Your task to perform on an android device: set default search engine in the chrome app Image 0: 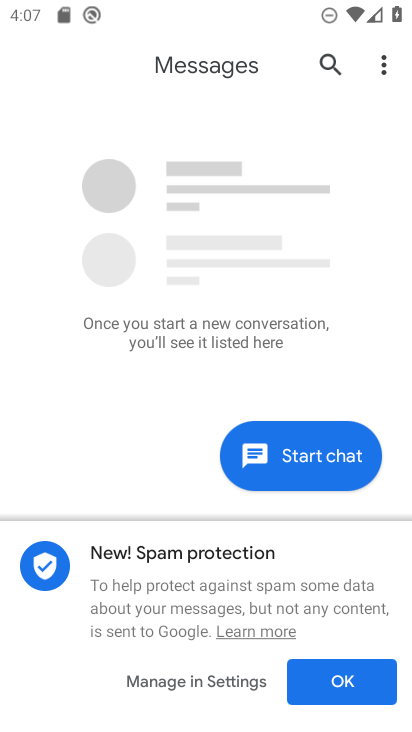
Step 0: press home button
Your task to perform on an android device: set default search engine in the chrome app Image 1: 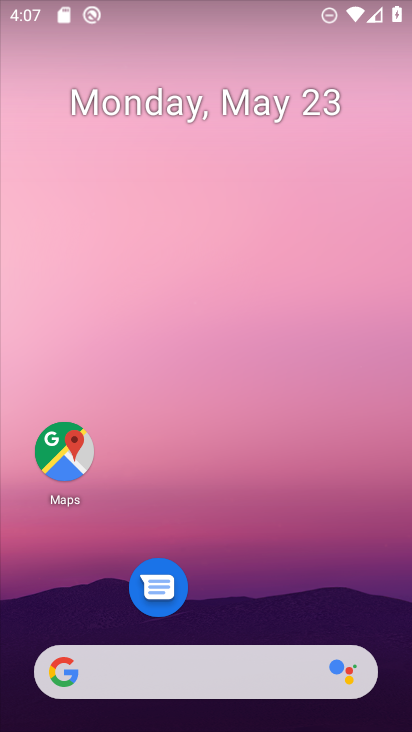
Step 1: drag from (209, 617) to (212, 200)
Your task to perform on an android device: set default search engine in the chrome app Image 2: 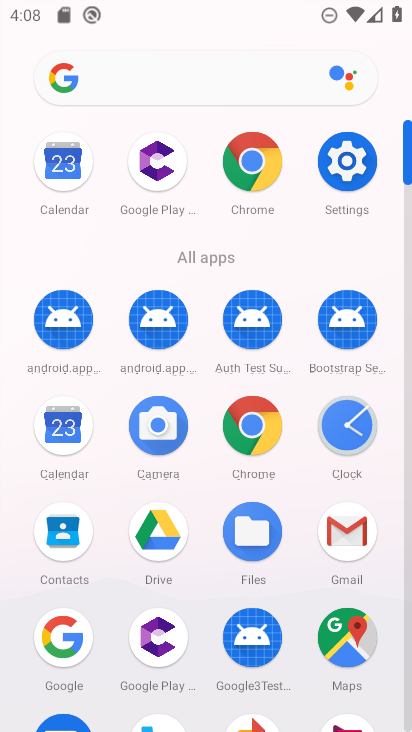
Step 2: click (278, 150)
Your task to perform on an android device: set default search engine in the chrome app Image 3: 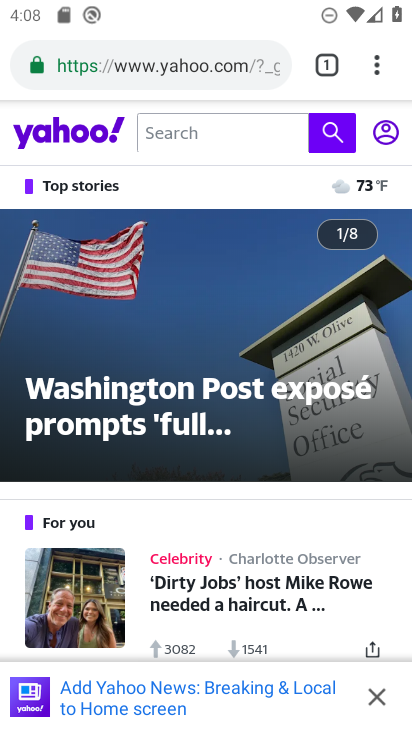
Step 3: click (367, 63)
Your task to perform on an android device: set default search engine in the chrome app Image 4: 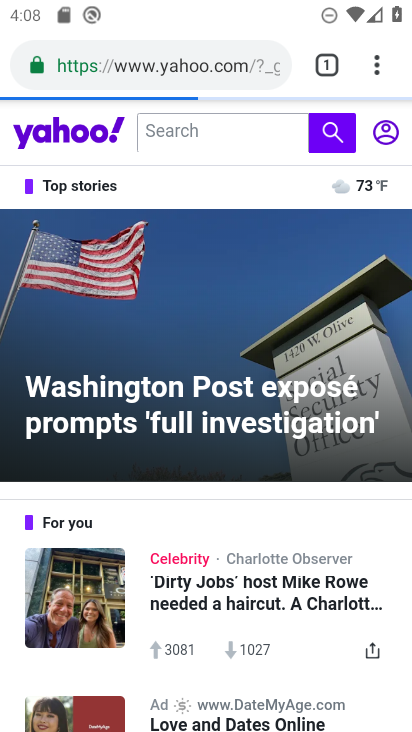
Step 4: drag from (369, 67) to (146, 642)
Your task to perform on an android device: set default search engine in the chrome app Image 5: 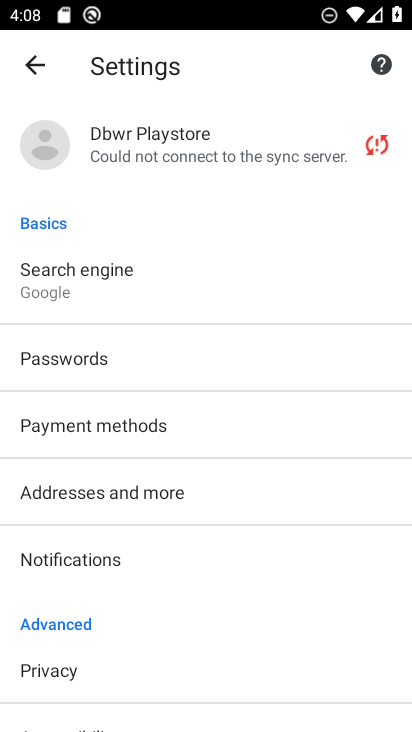
Step 5: click (147, 268)
Your task to perform on an android device: set default search engine in the chrome app Image 6: 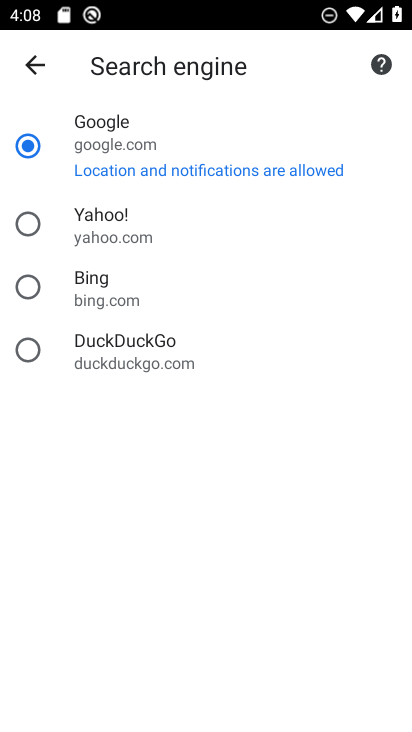
Step 6: click (110, 236)
Your task to perform on an android device: set default search engine in the chrome app Image 7: 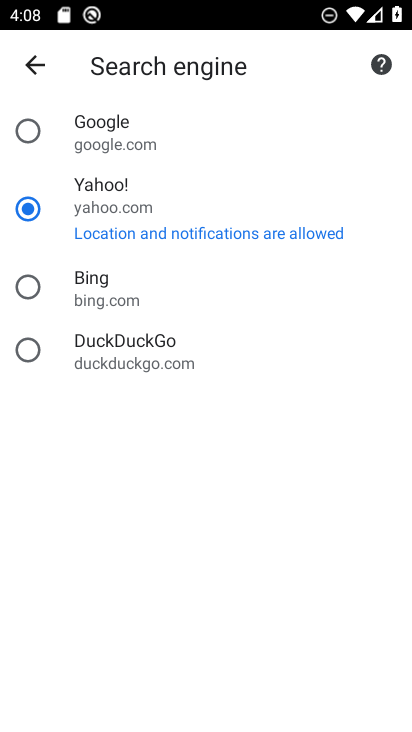
Step 7: task complete